Your task to perform on an android device: turn on improve location accuracy Image 0: 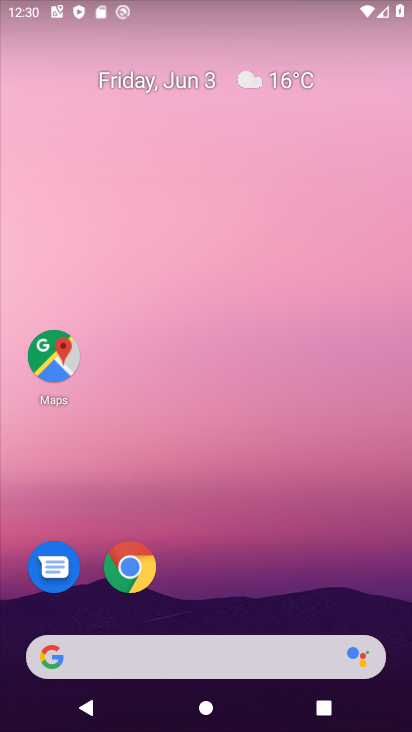
Step 0: drag from (309, 573) to (352, 165)
Your task to perform on an android device: turn on improve location accuracy Image 1: 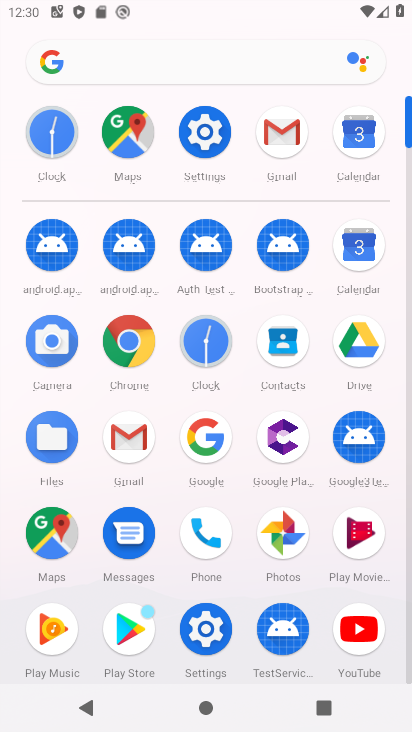
Step 1: click (209, 124)
Your task to perform on an android device: turn on improve location accuracy Image 2: 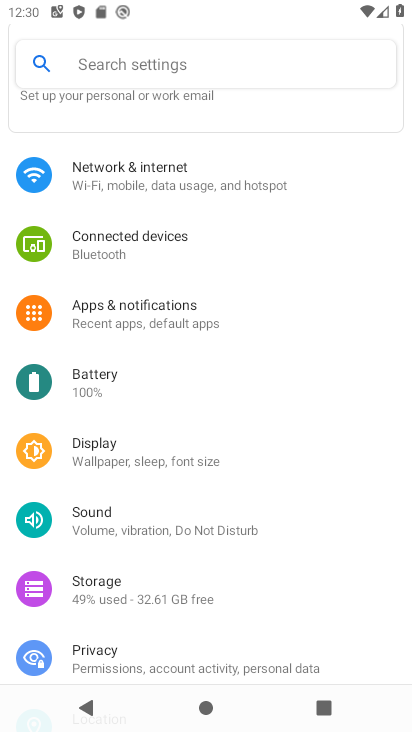
Step 2: drag from (207, 533) to (187, 308)
Your task to perform on an android device: turn on improve location accuracy Image 3: 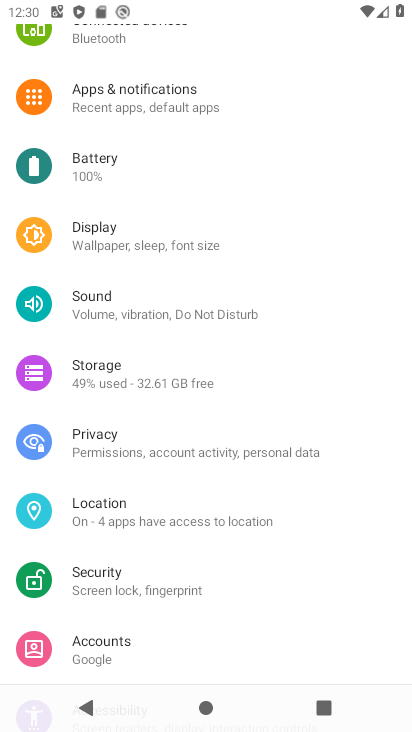
Step 3: click (113, 520)
Your task to perform on an android device: turn on improve location accuracy Image 4: 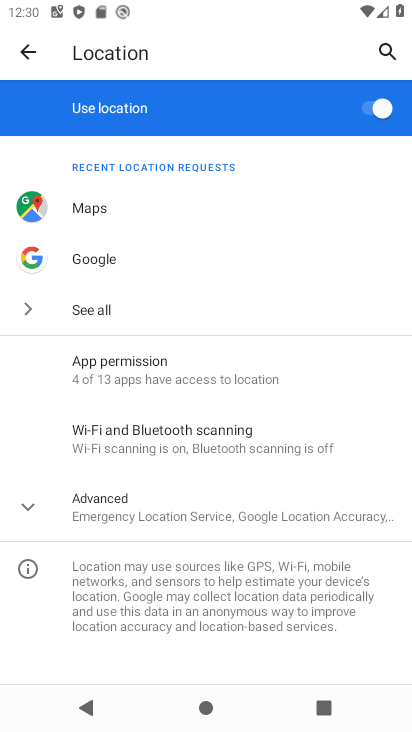
Step 4: click (133, 508)
Your task to perform on an android device: turn on improve location accuracy Image 5: 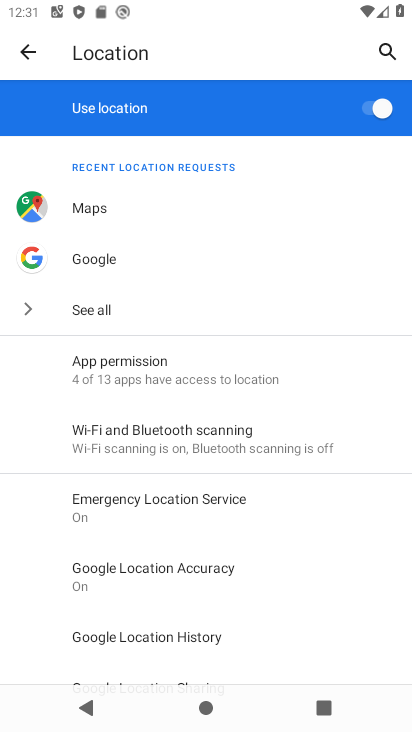
Step 5: drag from (155, 679) to (137, 559)
Your task to perform on an android device: turn on improve location accuracy Image 6: 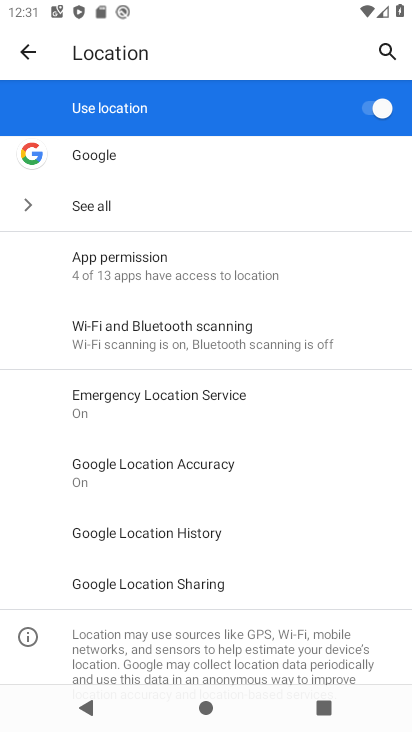
Step 6: click (139, 473)
Your task to perform on an android device: turn on improve location accuracy Image 7: 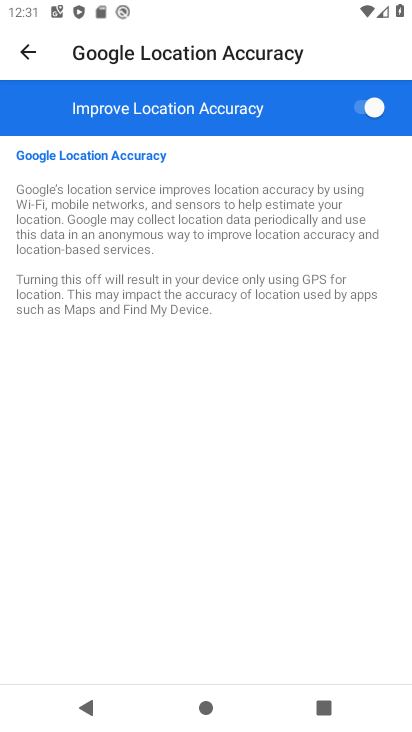
Step 7: task complete